Your task to perform on an android device: set an alarm Image 0: 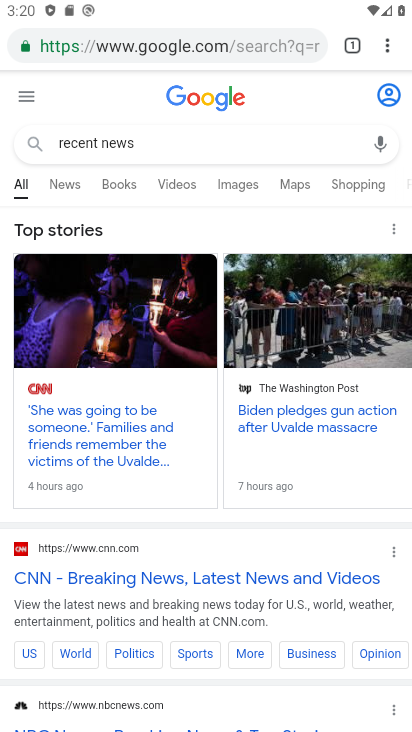
Step 0: press home button
Your task to perform on an android device: set an alarm Image 1: 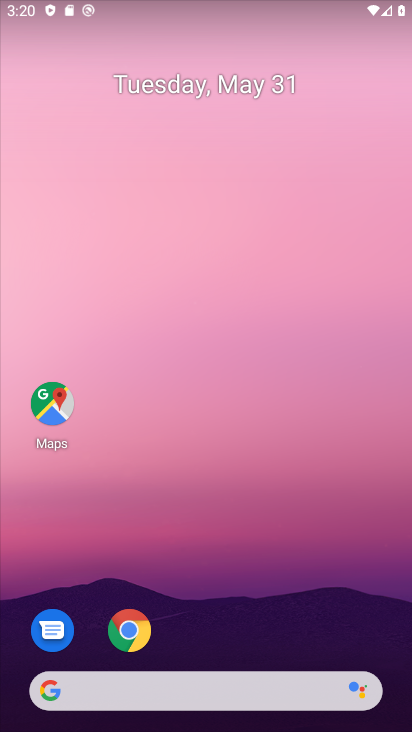
Step 1: drag from (289, 669) to (240, 8)
Your task to perform on an android device: set an alarm Image 2: 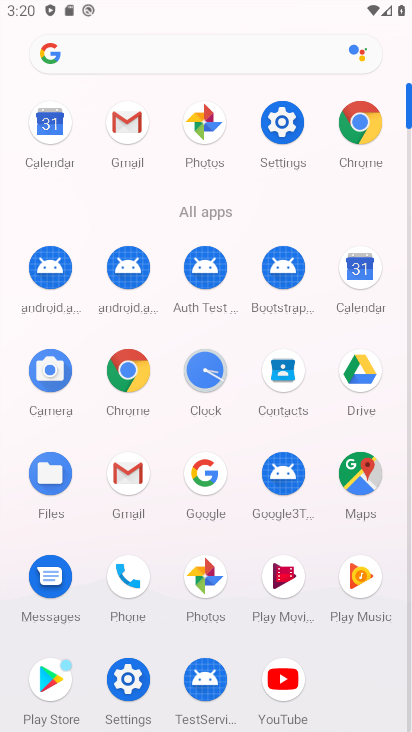
Step 2: click (221, 366)
Your task to perform on an android device: set an alarm Image 3: 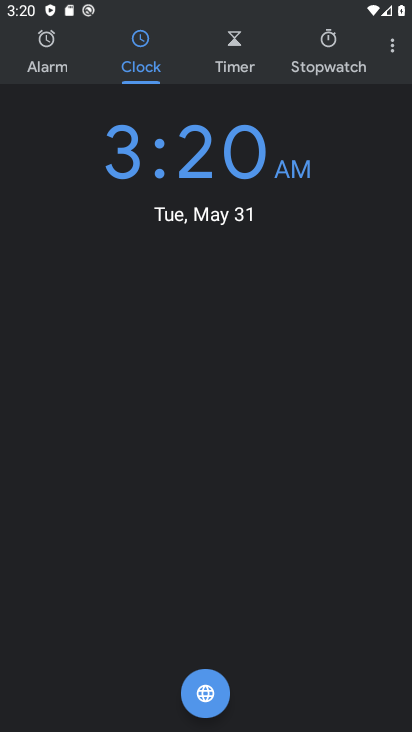
Step 3: click (55, 48)
Your task to perform on an android device: set an alarm Image 4: 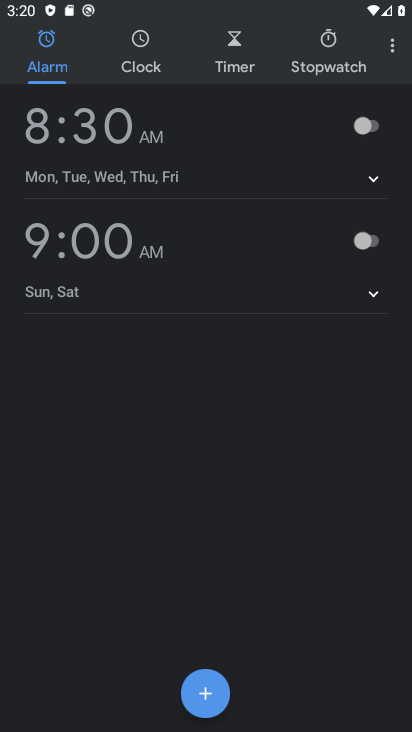
Step 4: click (370, 121)
Your task to perform on an android device: set an alarm Image 5: 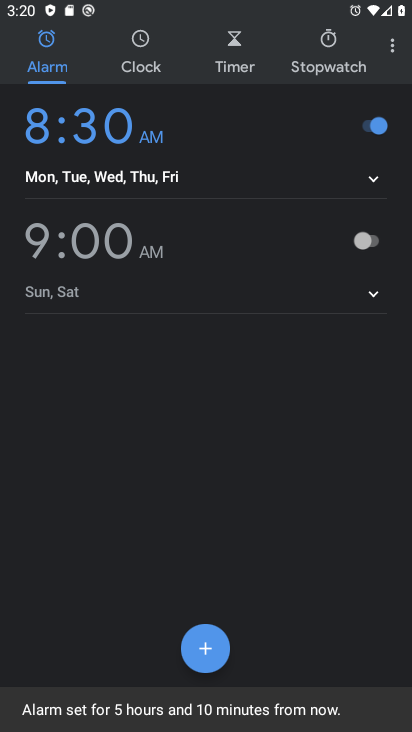
Step 5: task complete